Your task to perform on an android device: open wifi settings Image 0: 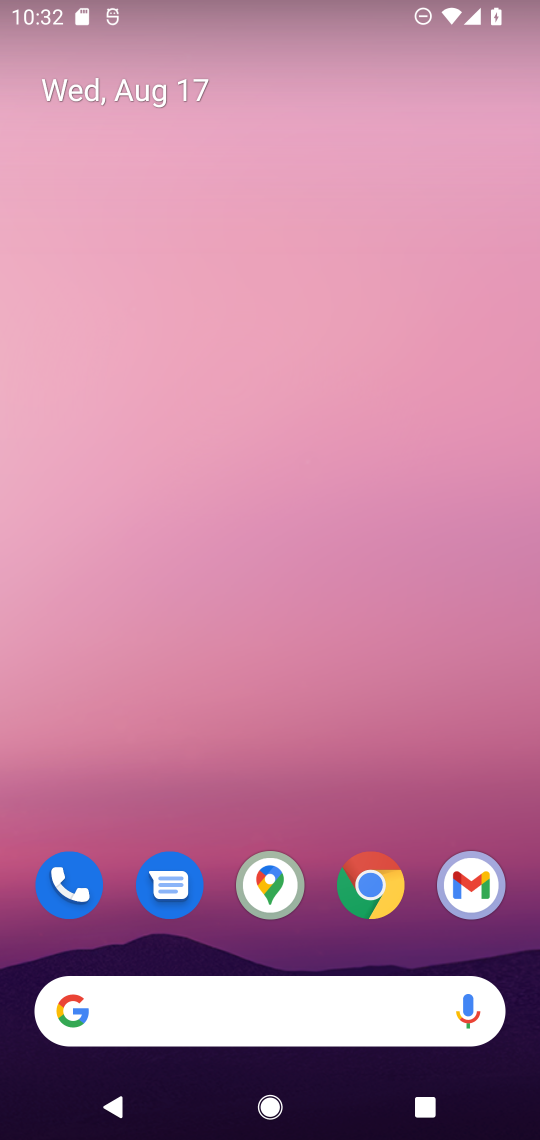
Step 0: drag from (415, 950) to (366, 150)
Your task to perform on an android device: open wifi settings Image 1: 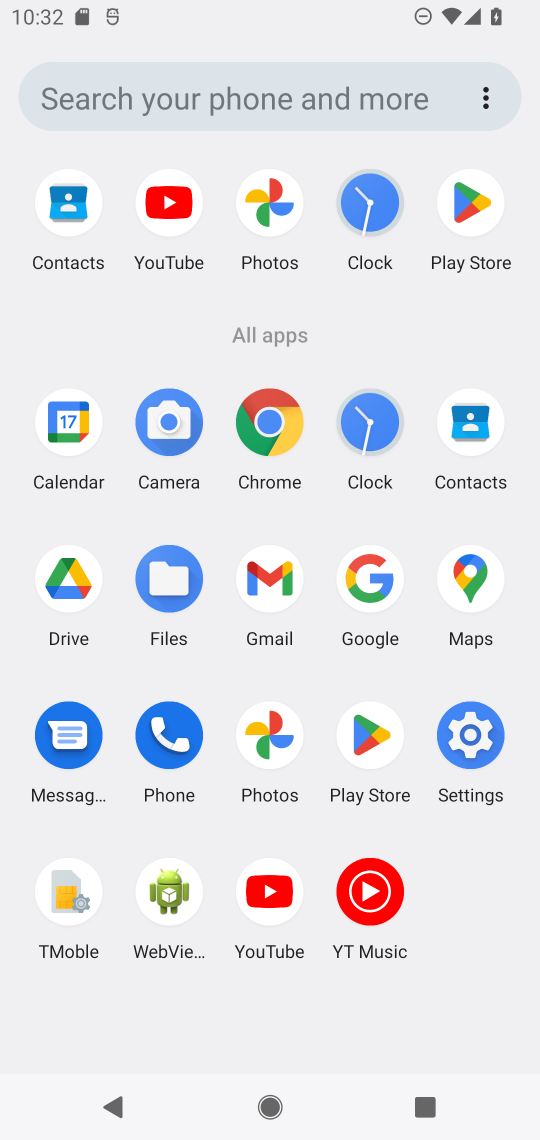
Step 1: click (469, 731)
Your task to perform on an android device: open wifi settings Image 2: 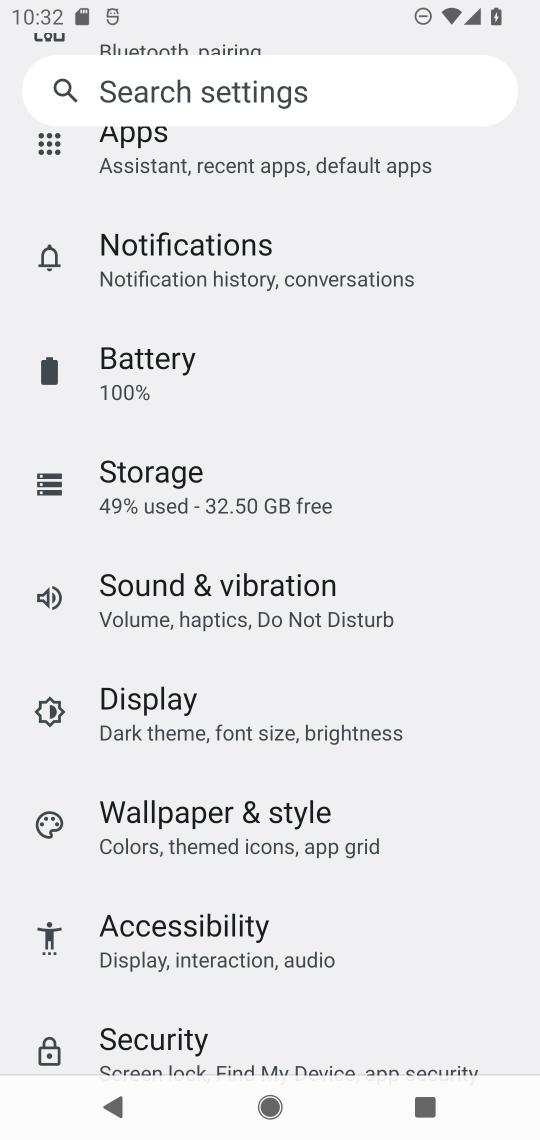
Step 2: drag from (434, 373) to (448, 820)
Your task to perform on an android device: open wifi settings Image 3: 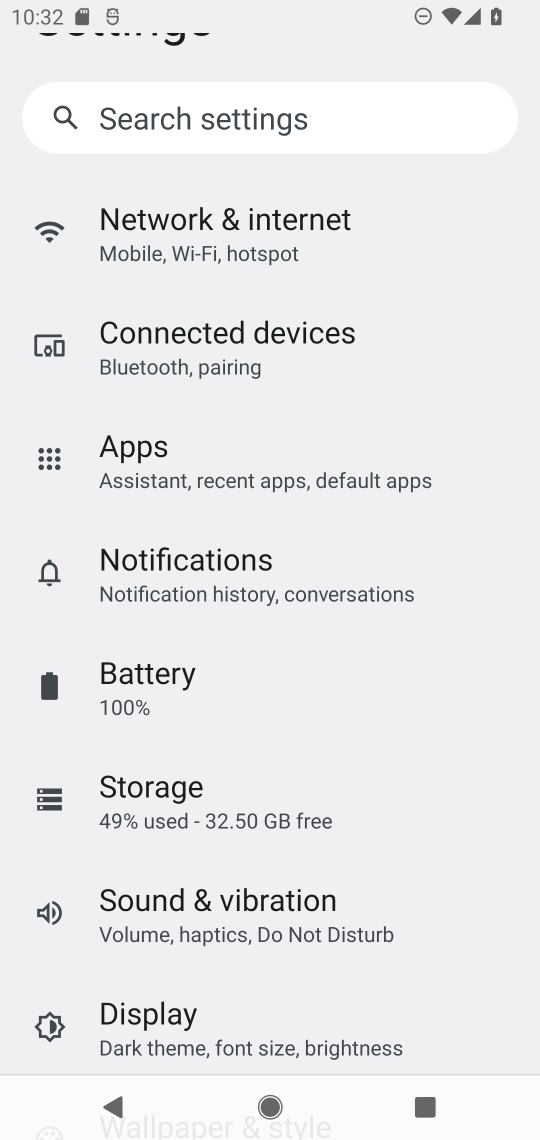
Step 3: click (152, 222)
Your task to perform on an android device: open wifi settings Image 4: 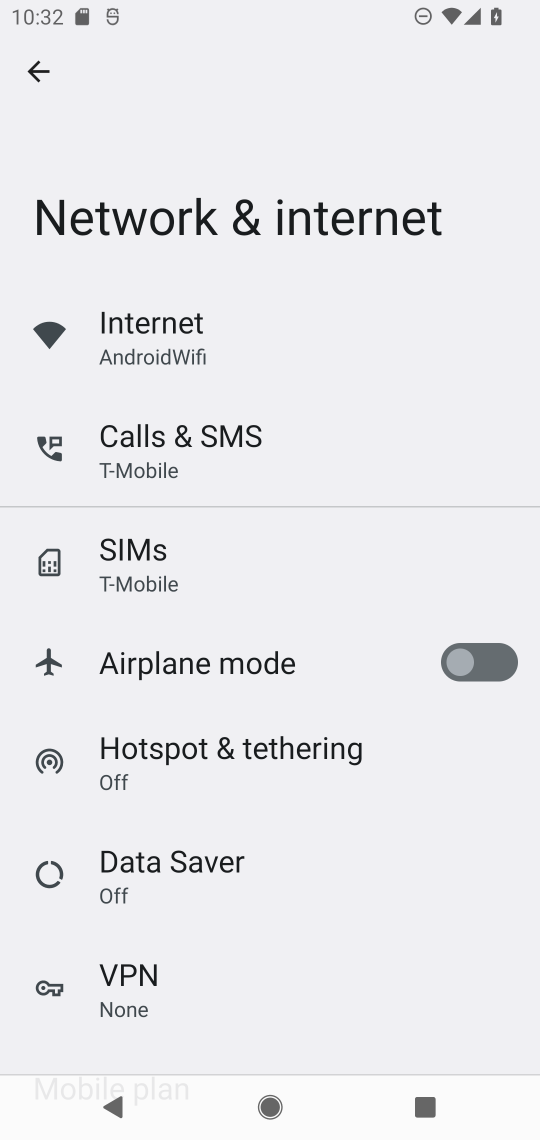
Step 4: click (149, 335)
Your task to perform on an android device: open wifi settings Image 5: 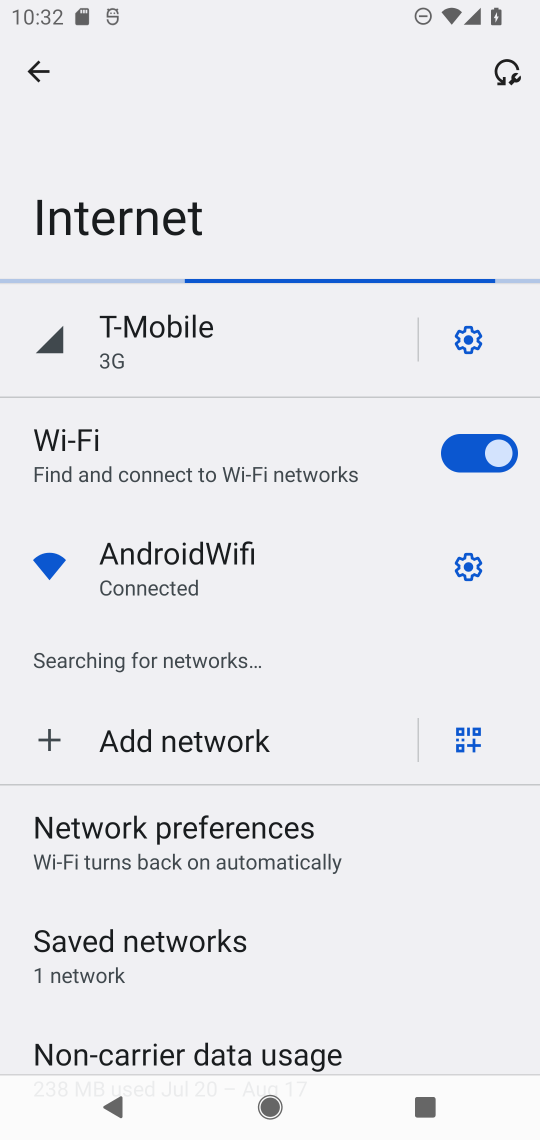
Step 5: click (464, 568)
Your task to perform on an android device: open wifi settings Image 6: 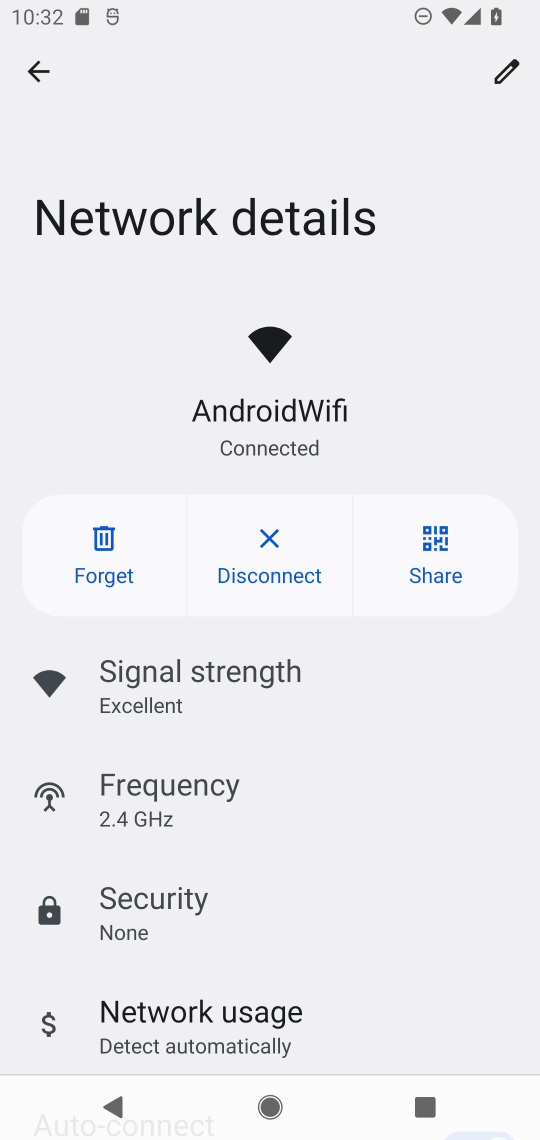
Step 6: task complete